Your task to perform on an android device: install app "Adobe Acrobat Reader: Edit PDF" Image 0: 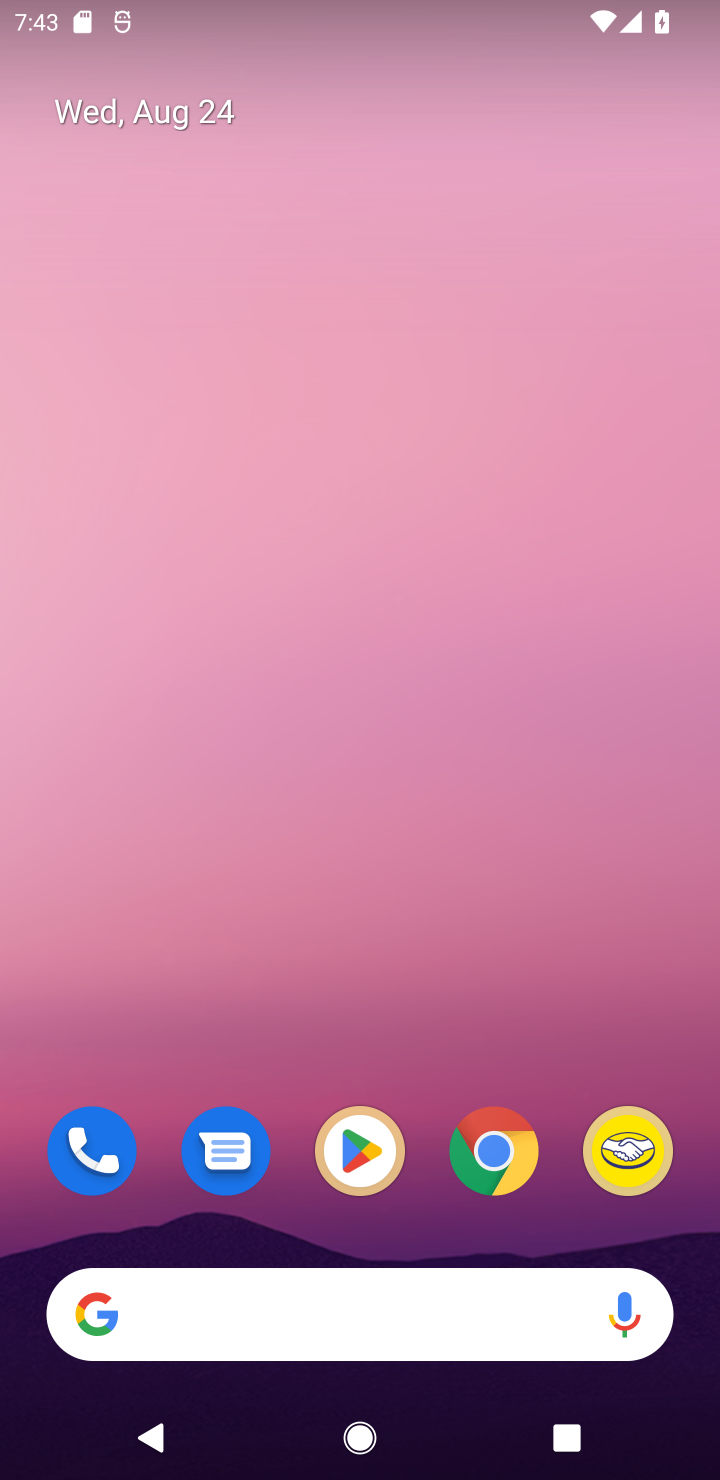
Step 0: click (359, 1150)
Your task to perform on an android device: install app "Adobe Acrobat Reader: Edit PDF" Image 1: 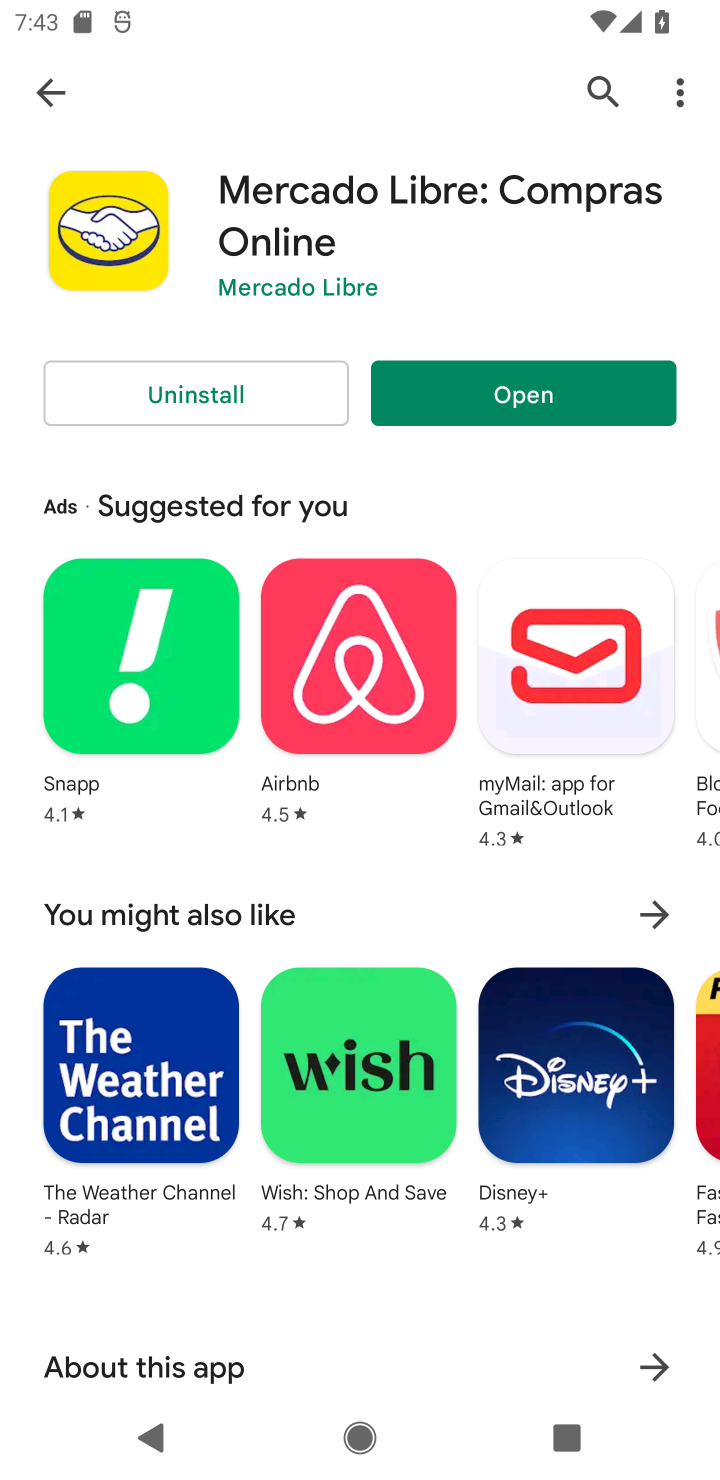
Step 1: click (596, 84)
Your task to perform on an android device: install app "Adobe Acrobat Reader: Edit PDF" Image 2: 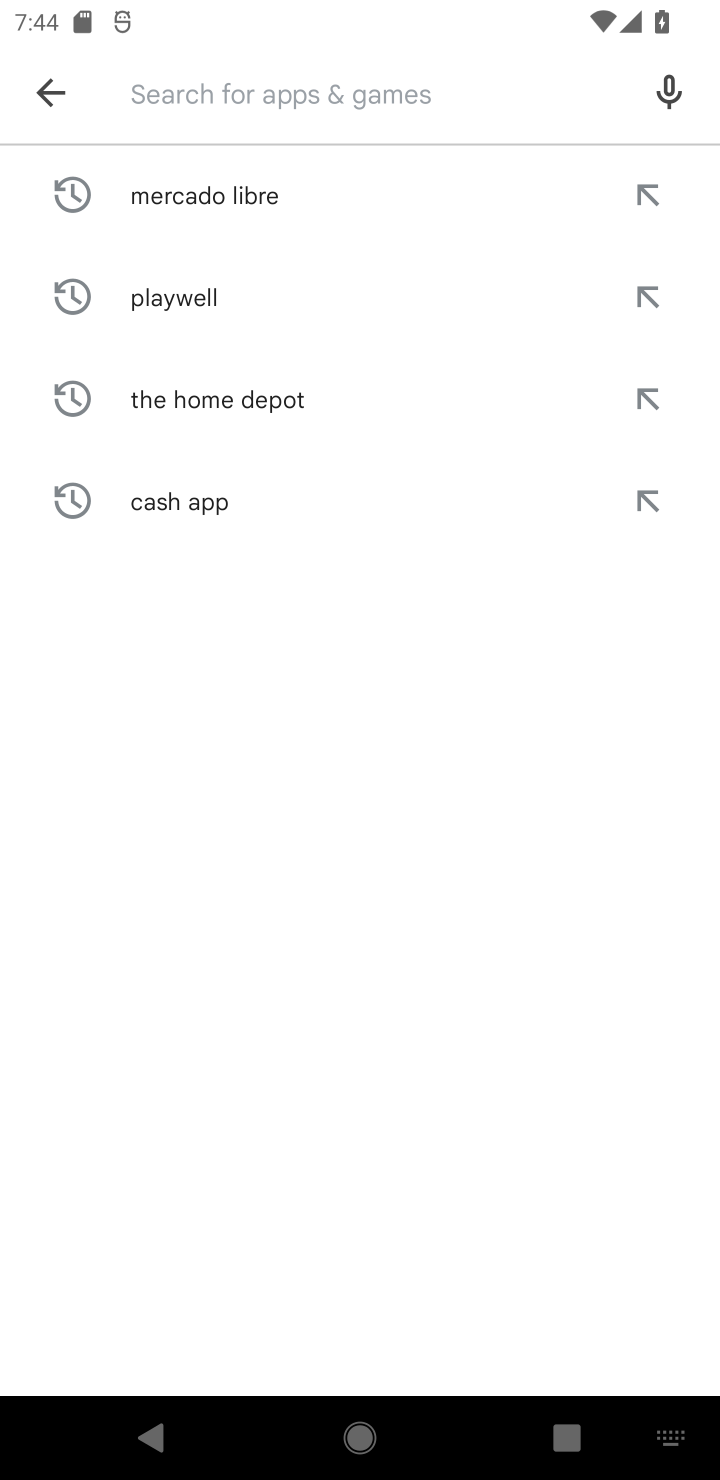
Step 2: type "Adobe Acrobat Reader: Edit PDF"
Your task to perform on an android device: install app "Adobe Acrobat Reader: Edit PDF" Image 3: 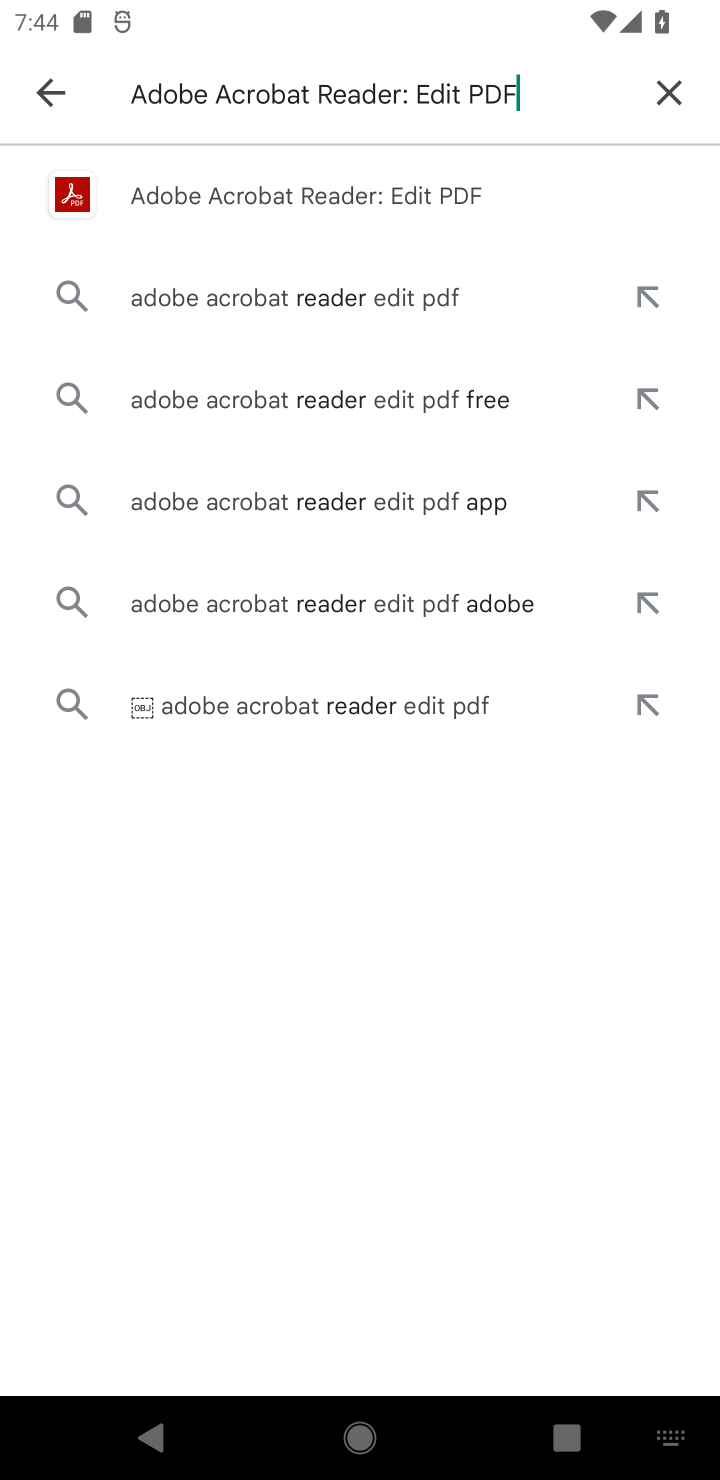
Step 3: click (195, 187)
Your task to perform on an android device: install app "Adobe Acrobat Reader: Edit PDF" Image 4: 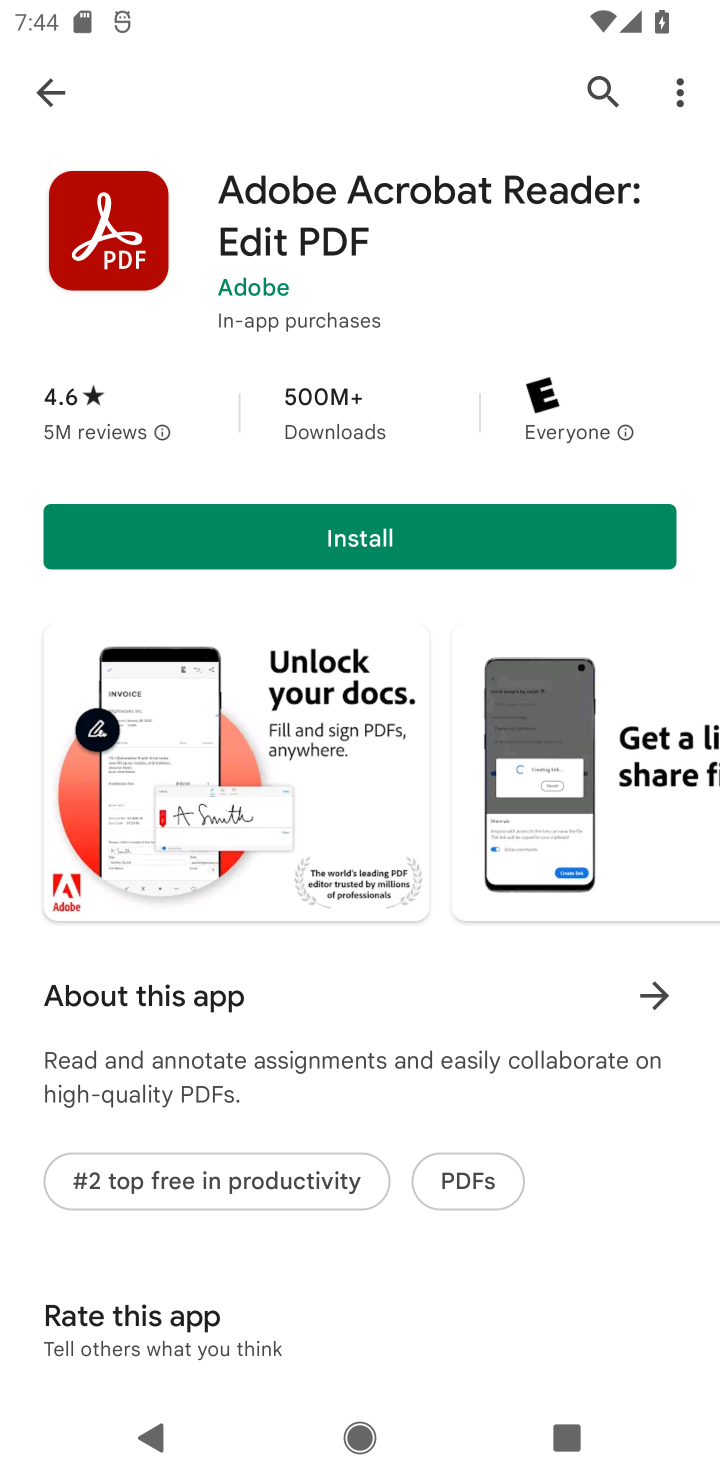
Step 4: click (357, 528)
Your task to perform on an android device: install app "Adobe Acrobat Reader: Edit PDF" Image 5: 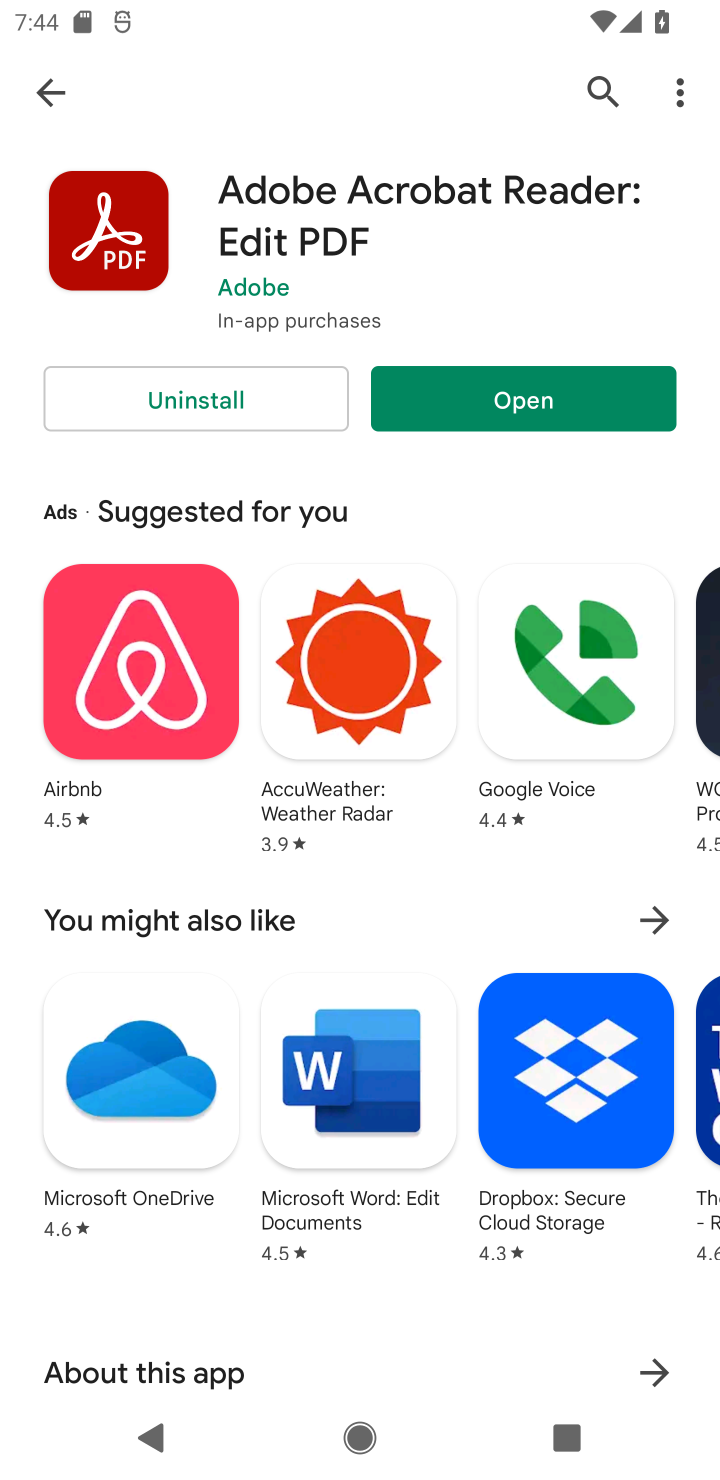
Step 5: task complete